Your task to perform on an android device: add a label to a message in the gmail app Image 0: 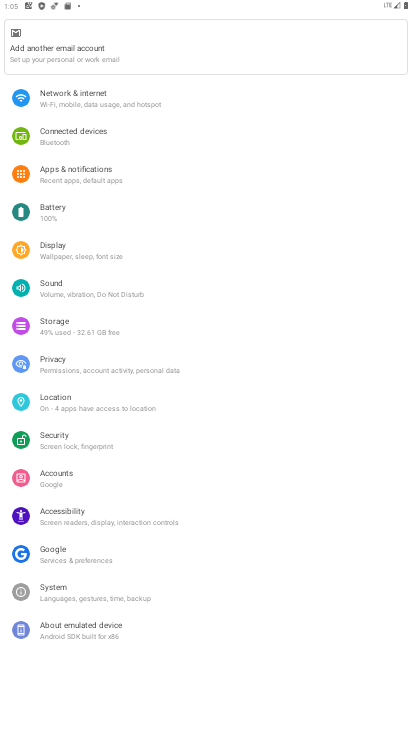
Step 0: press home button
Your task to perform on an android device: add a label to a message in the gmail app Image 1: 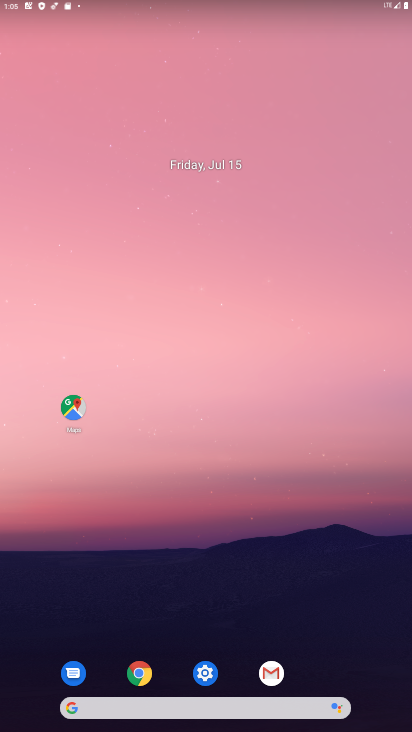
Step 1: click (281, 667)
Your task to perform on an android device: add a label to a message in the gmail app Image 2: 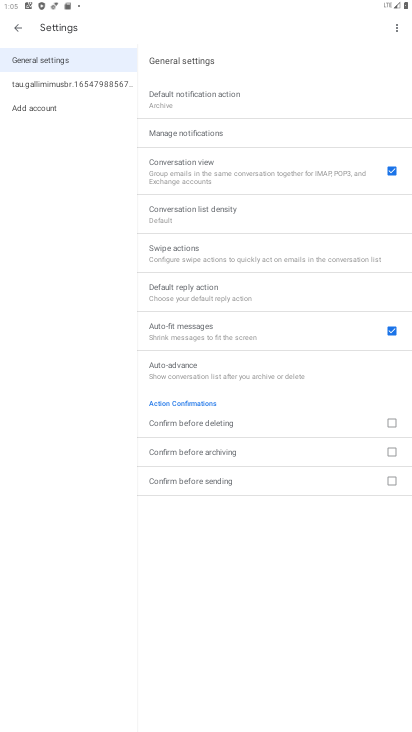
Step 2: click (47, 81)
Your task to perform on an android device: add a label to a message in the gmail app Image 3: 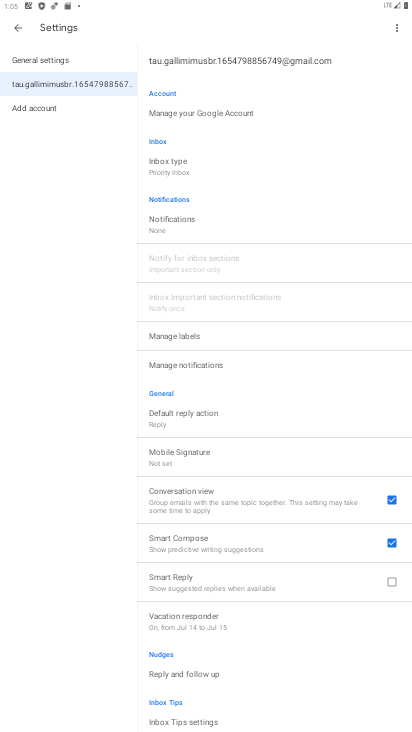
Step 3: click (182, 341)
Your task to perform on an android device: add a label to a message in the gmail app Image 4: 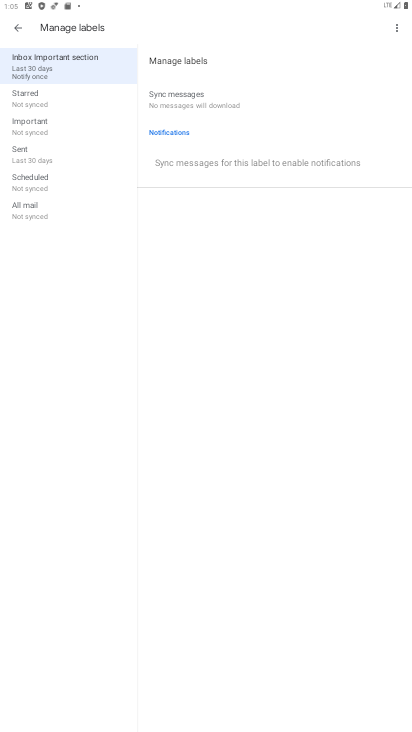
Step 4: click (23, 104)
Your task to perform on an android device: add a label to a message in the gmail app Image 5: 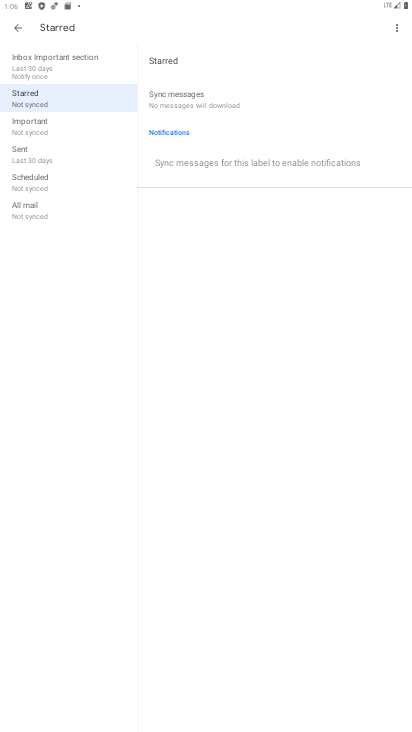
Step 5: task complete